Your task to perform on an android device: Show me popular videos on Youtube Image 0: 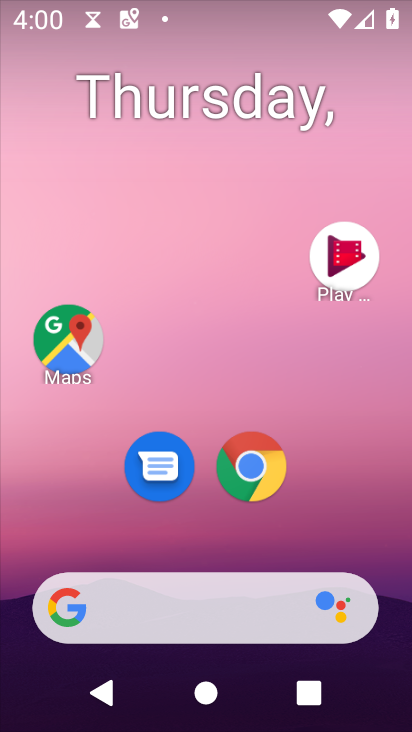
Step 0: drag from (168, 643) to (331, 15)
Your task to perform on an android device: Show me popular videos on Youtube Image 1: 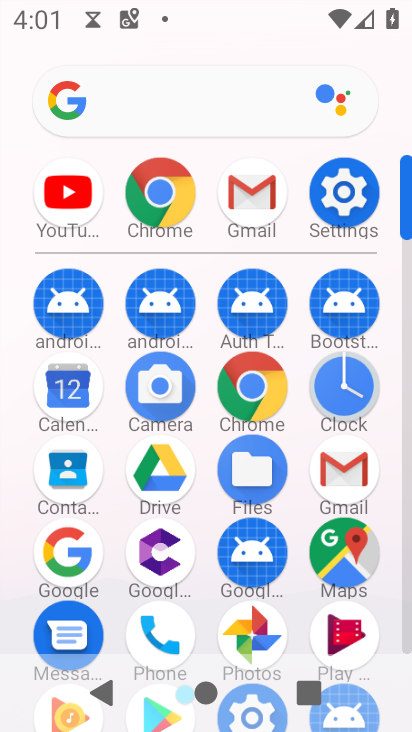
Step 1: drag from (291, 589) to (322, 193)
Your task to perform on an android device: Show me popular videos on Youtube Image 2: 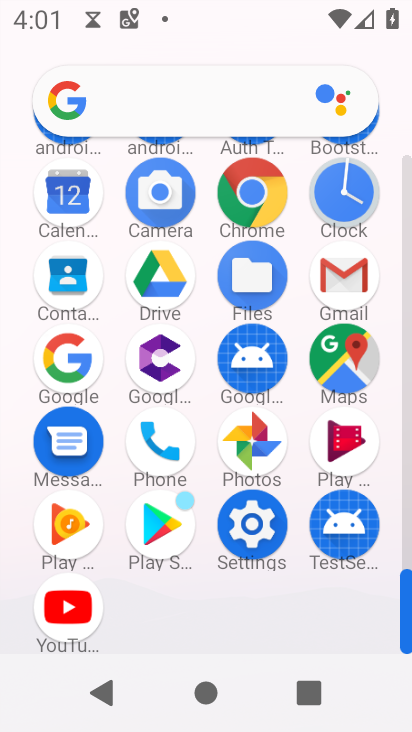
Step 2: click (74, 626)
Your task to perform on an android device: Show me popular videos on Youtube Image 3: 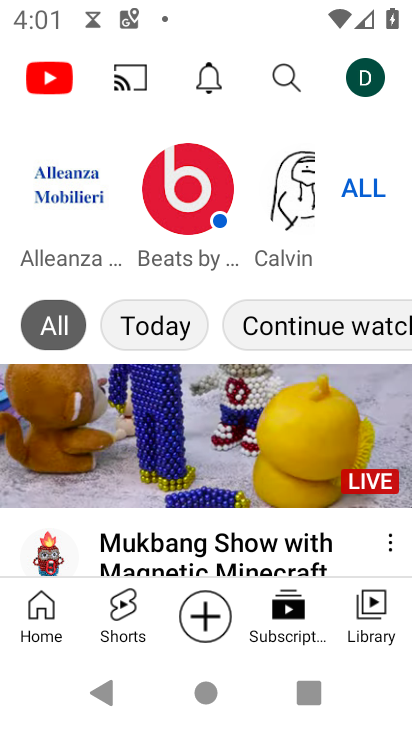
Step 3: click (365, 618)
Your task to perform on an android device: Show me popular videos on Youtube Image 4: 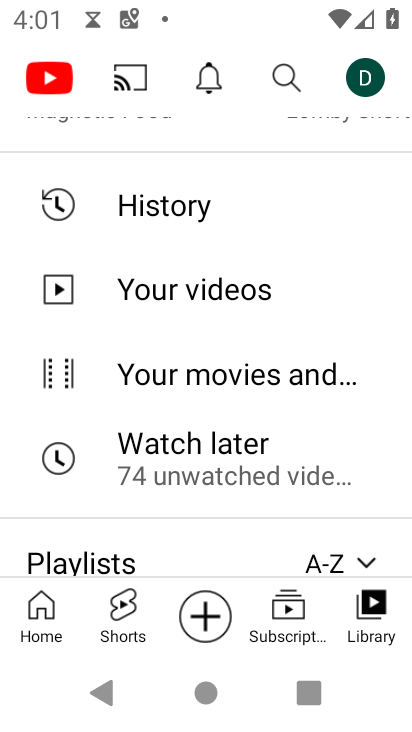
Step 4: drag from (210, 182) to (172, 575)
Your task to perform on an android device: Show me popular videos on Youtube Image 5: 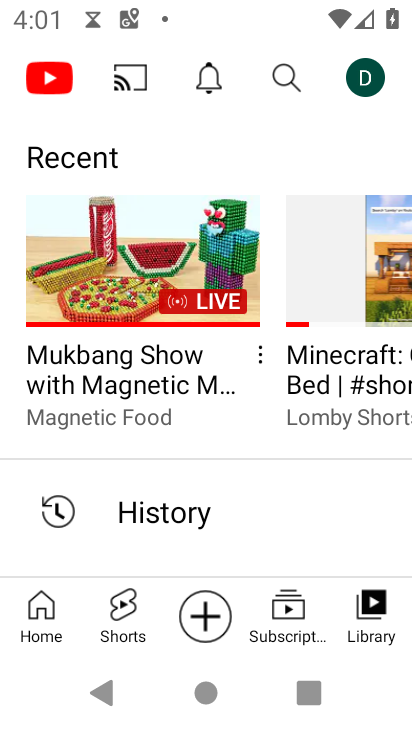
Step 5: click (186, 301)
Your task to perform on an android device: Show me popular videos on Youtube Image 6: 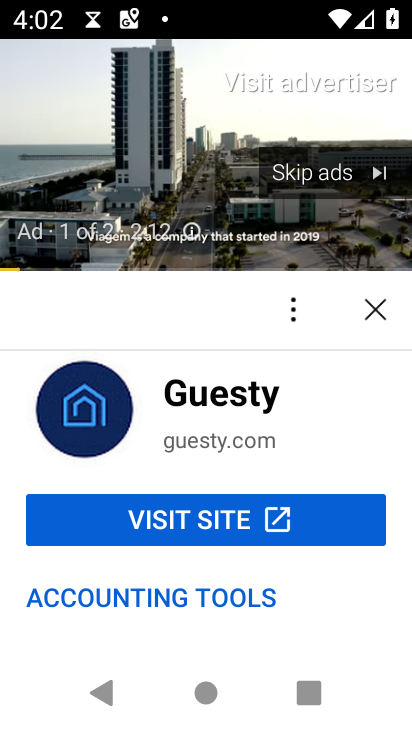
Step 6: click (335, 182)
Your task to perform on an android device: Show me popular videos on Youtube Image 7: 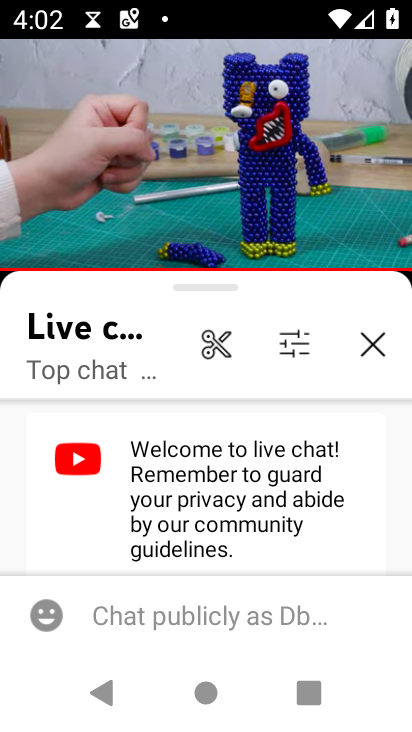
Step 7: click (201, 143)
Your task to perform on an android device: Show me popular videos on Youtube Image 8: 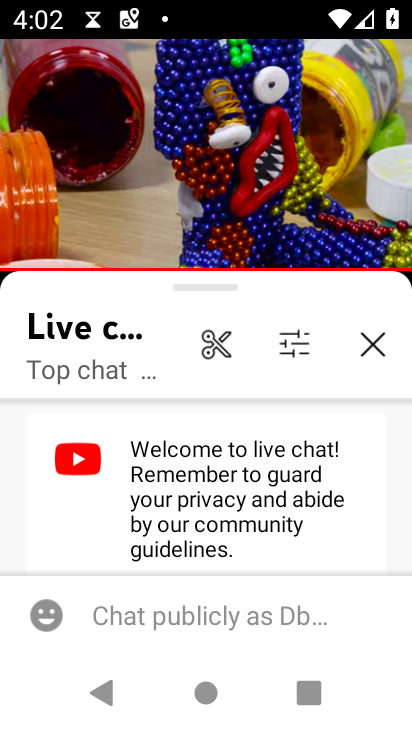
Step 8: task complete